Your task to perform on an android device: refresh tabs in the chrome app Image 0: 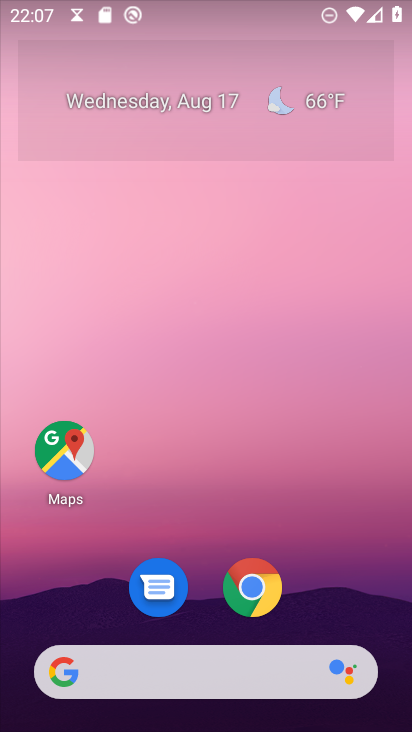
Step 0: click (233, 587)
Your task to perform on an android device: refresh tabs in the chrome app Image 1: 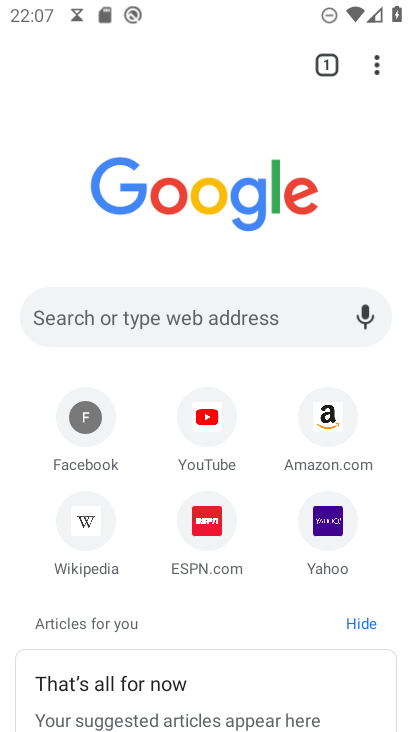
Step 1: click (371, 64)
Your task to perform on an android device: refresh tabs in the chrome app Image 2: 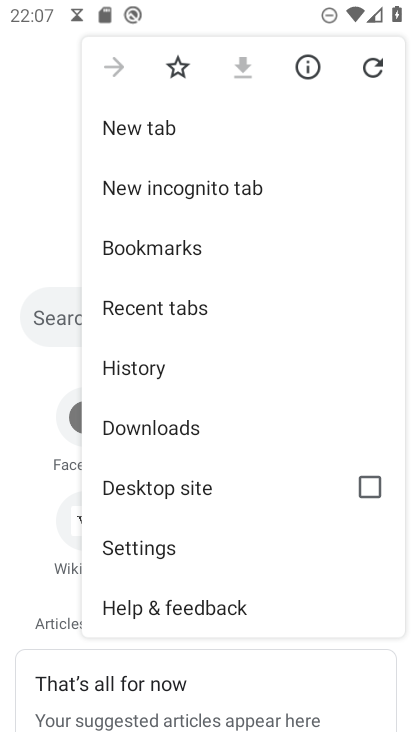
Step 2: click (375, 68)
Your task to perform on an android device: refresh tabs in the chrome app Image 3: 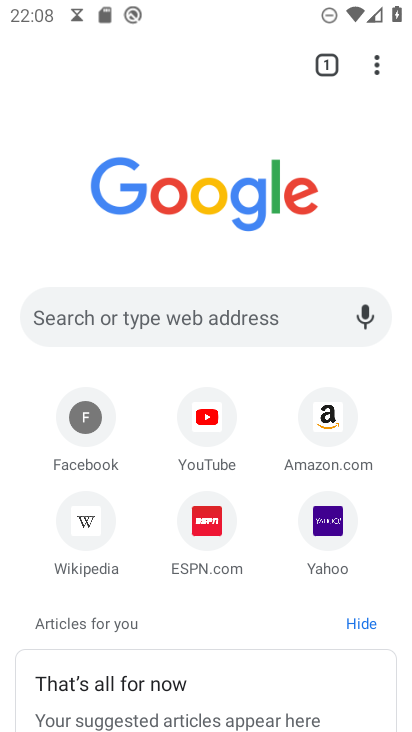
Step 3: task complete